Your task to perform on an android device: turn off smart reply in the gmail app Image 0: 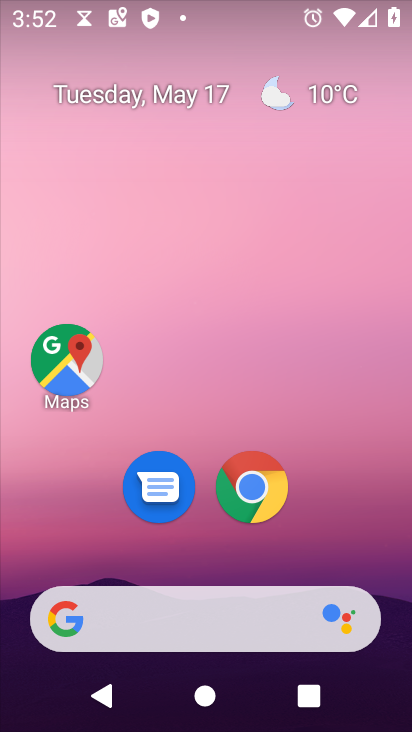
Step 0: drag from (390, 592) to (371, 92)
Your task to perform on an android device: turn off smart reply in the gmail app Image 1: 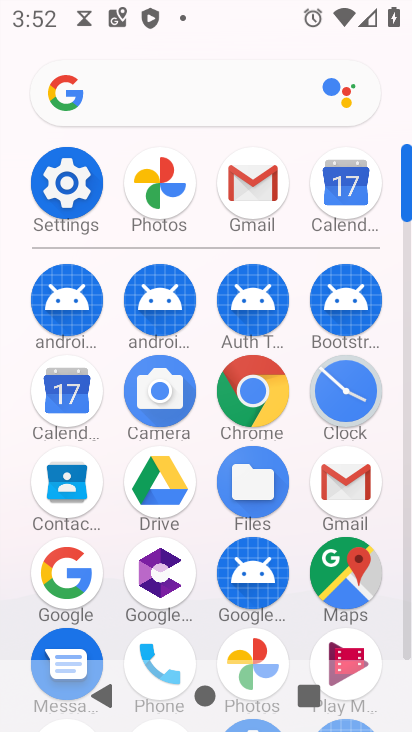
Step 1: click (408, 643)
Your task to perform on an android device: turn off smart reply in the gmail app Image 2: 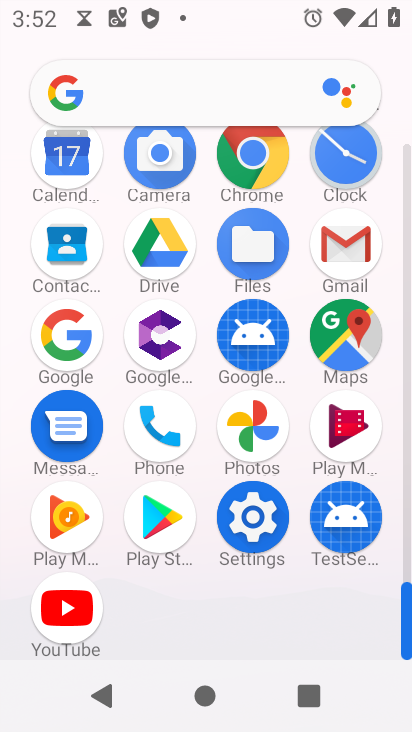
Step 2: click (345, 240)
Your task to perform on an android device: turn off smart reply in the gmail app Image 3: 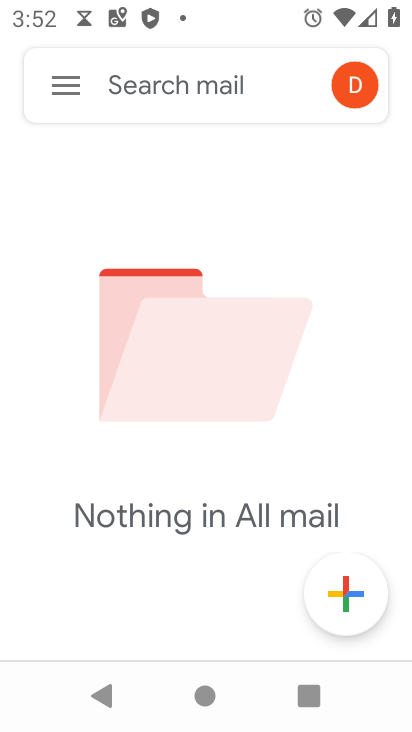
Step 3: click (57, 83)
Your task to perform on an android device: turn off smart reply in the gmail app Image 4: 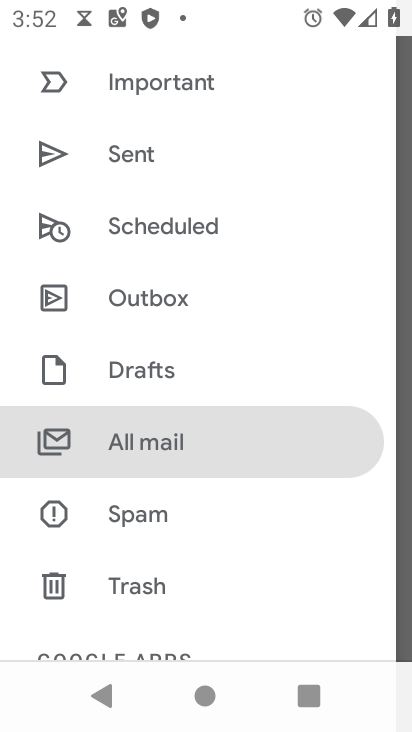
Step 4: drag from (256, 561) to (286, 78)
Your task to perform on an android device: turn off smart reply in the gmail app Image 5: 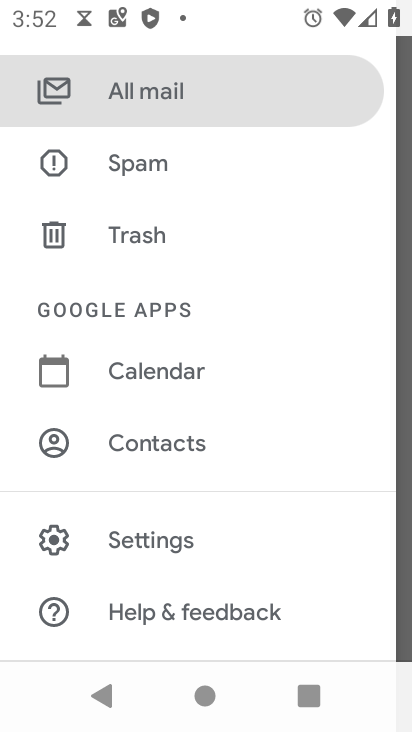
Step 5: click (159, 527)
Your task to perform on an android device: turn off smart reply in the gmail app Image 6: 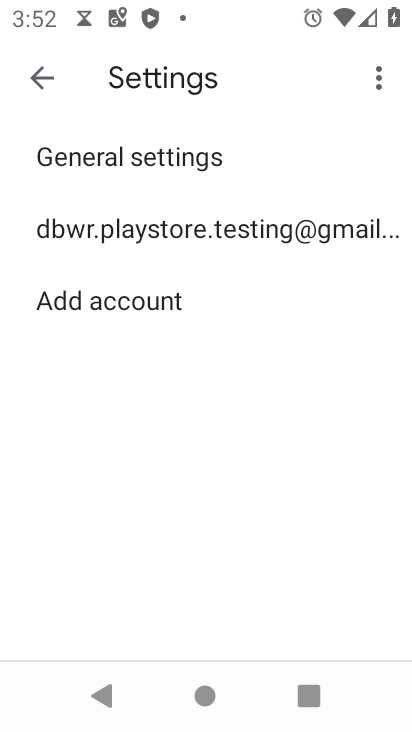
Step 6: click (170, 238)
Your task to perform on an android device: turn off smart reply in the gmail app Image 7: 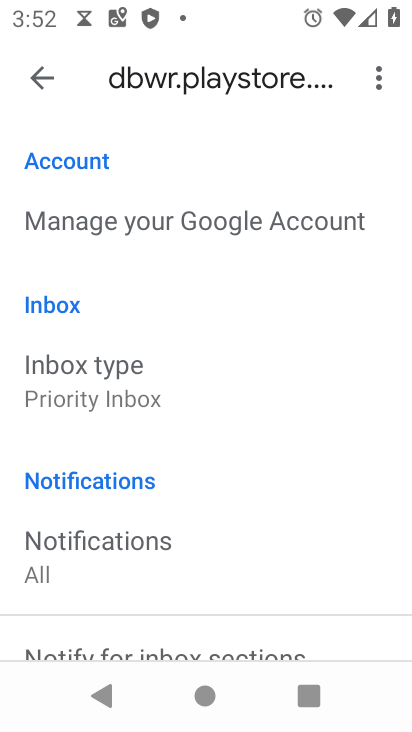
Step 7: drag from (224, 605) to (275, 125)
Your task to perform on an android device: turn off smart reply in the gmail app Image 8: 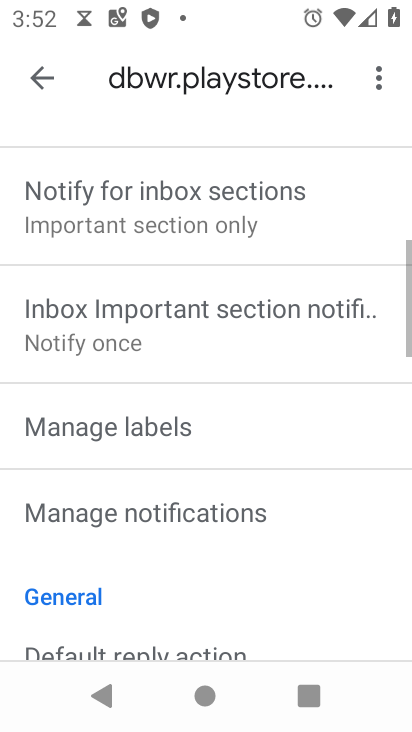
Step 8: drag from (312, 582) to (393, 191)
Your task to perform on an android device: turn off smart reply in the gmail app Image 9: 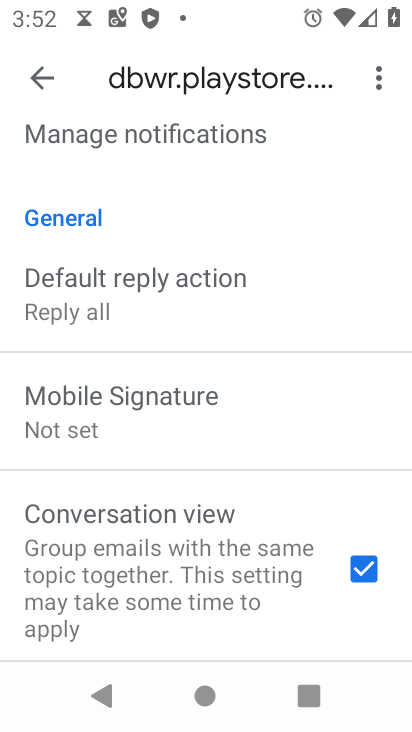
Step 9: drag from (337, 592) to (359, 142)
Your task to perform on an android device: turn off smart reply in the gmail app Image 10: 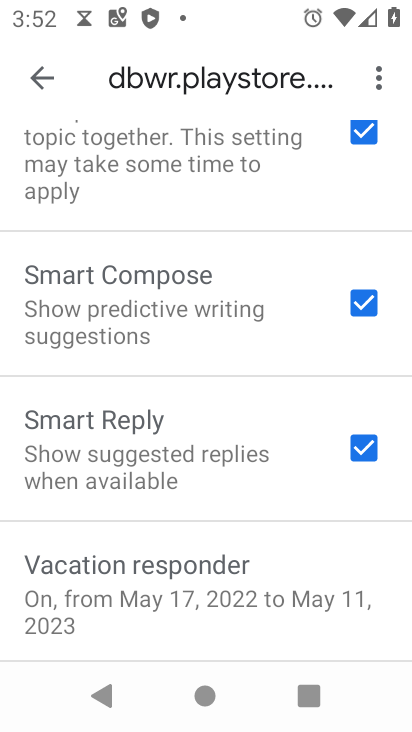
Step 10: click (363, 297)
Your task to perform on an android device: turn off smart reply in the gmail app Image 11: 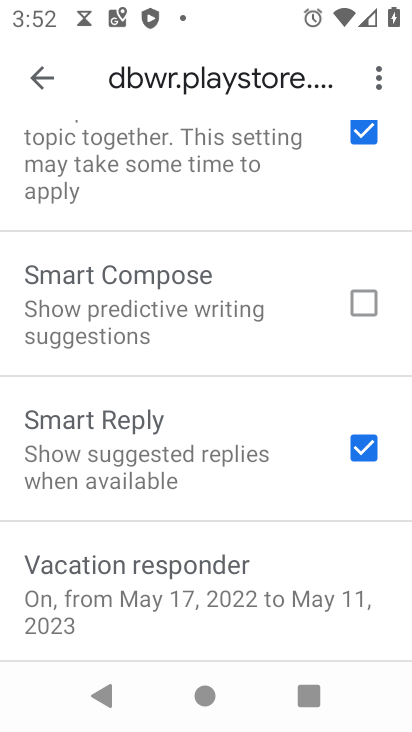
Step 11: task complete